Your task to perform on an android device: change the upload size in google photos Image 0: 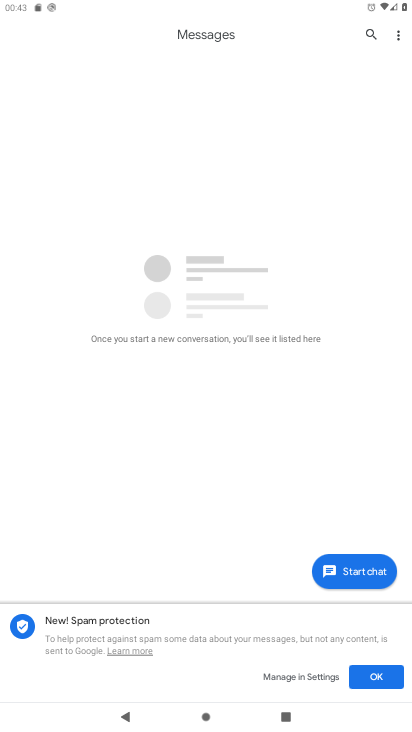
Step 0: press home button
Your task to perform on an android device: change the upload size in google photos Image 1: 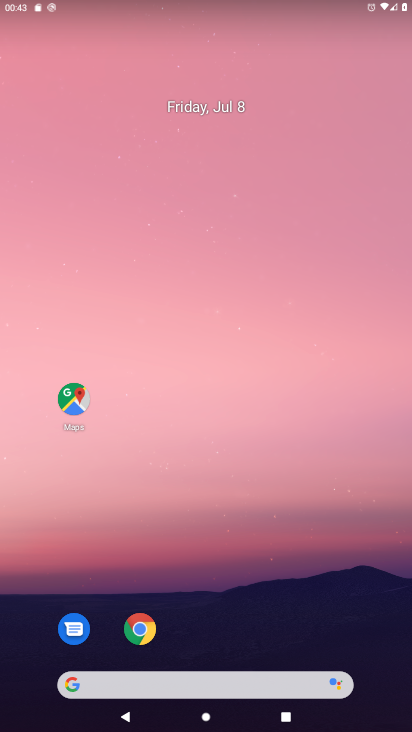
Step 1: drag from (267, 534) to (279, 96)
Your task to perform on an android device: change the upload size in google photos Image 2: 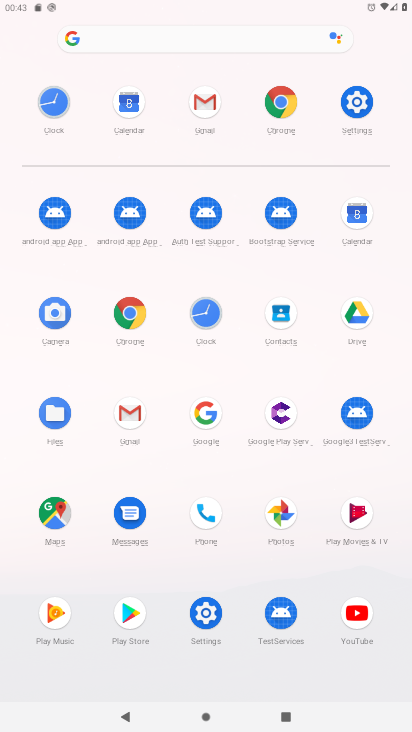
Step 2: click (278, 512)
Your task to perform on an android device: change the upload size in google photos Image 3: 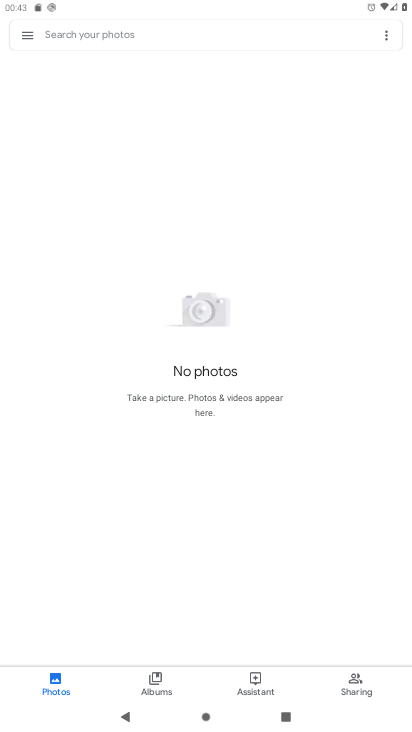
Step 3: click (29, 40)
Your task to perform on an android device: change the upload size in google photos Image 4: 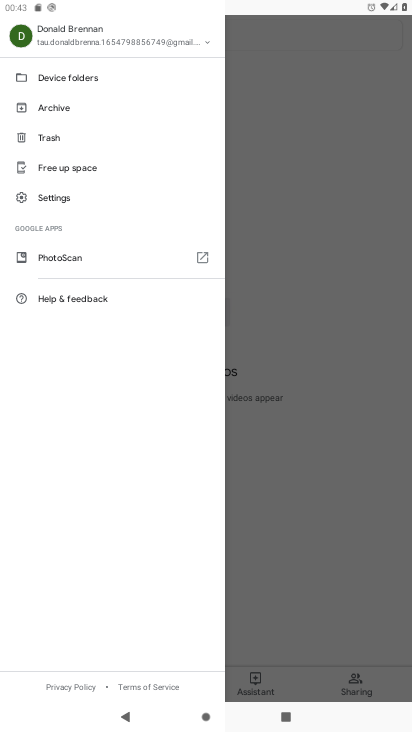
Step 4: click (73, 201)
Your task to perform on an android device: change the upload size in google photos Image 5: 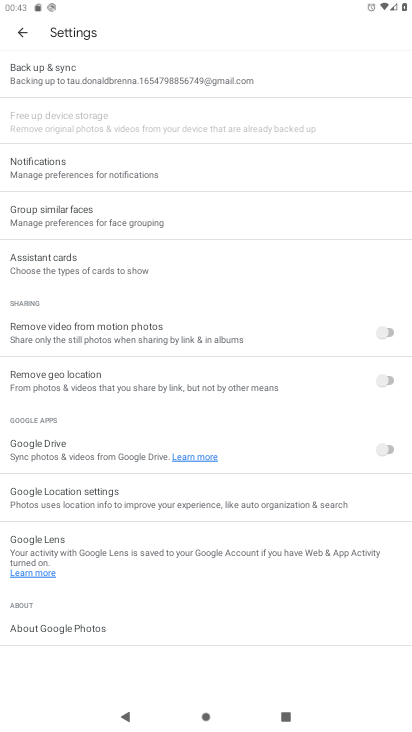
Step 5: click (113, 79)
Your task to perform on an android device: change the upload size in google photos Image 6: 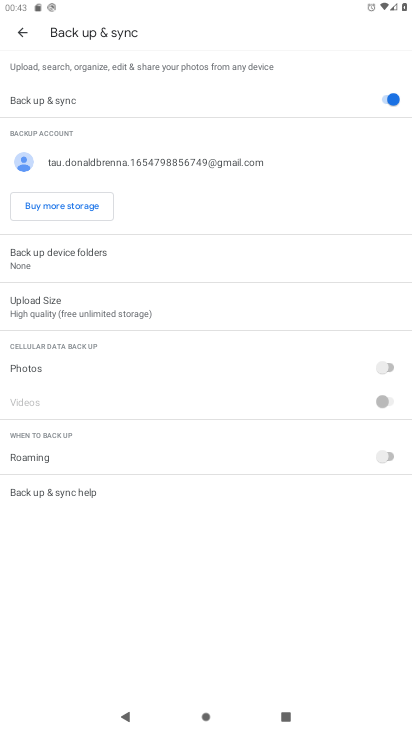
Step 6: click (58, 305)
Your task to perform on an android device: change the upload size in google photos Image 7: 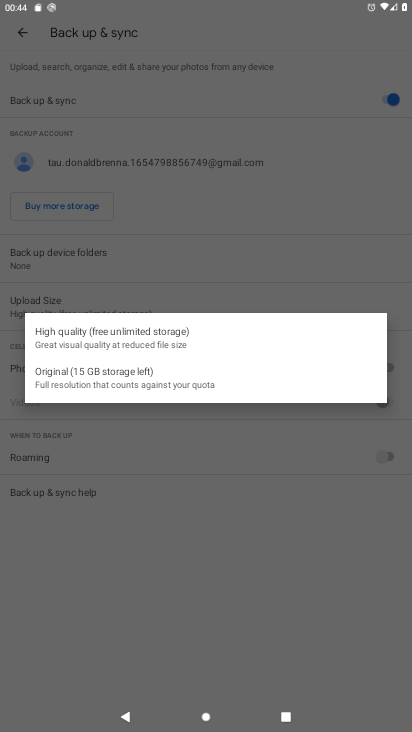
Step 7: click (97, 375)
Your task to perform on an android device: change the upload size in google photos Image 8: 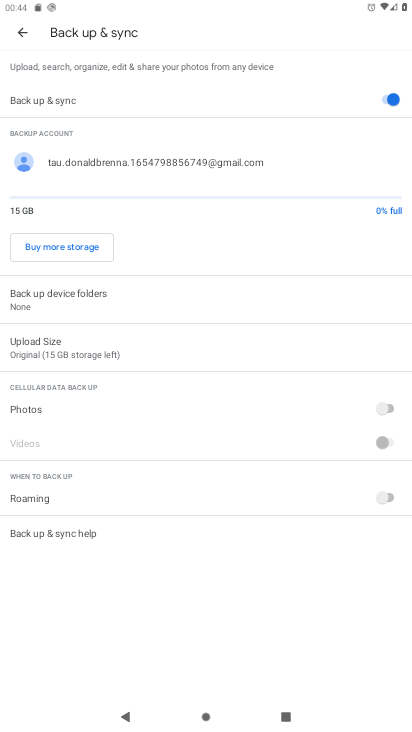
Step 8: task complete